Your task to perform on an android device: What's on my calendar today? Image 0: 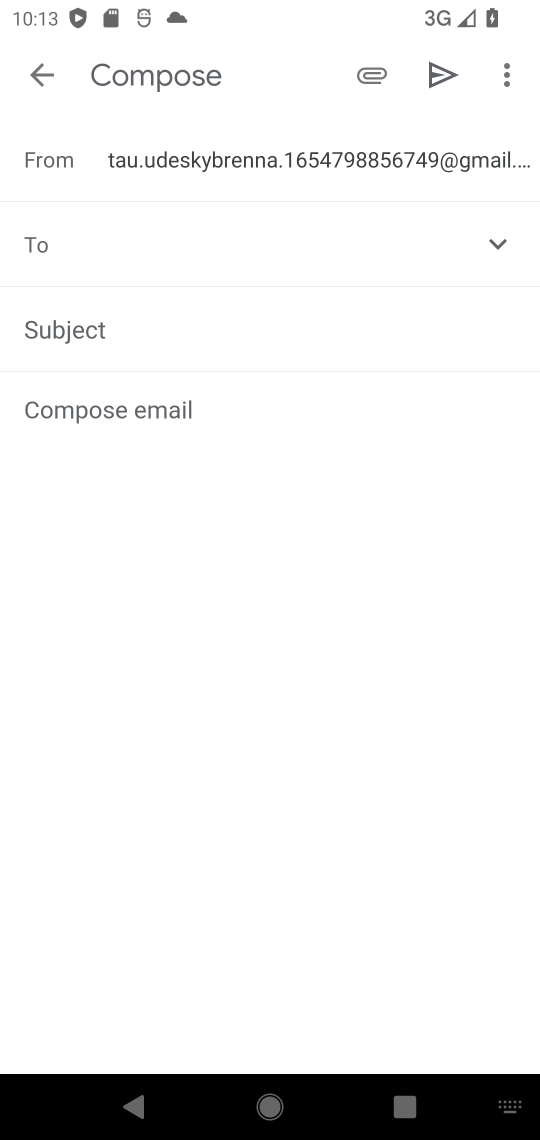
Step 0: press home button
Your task to perform on an android device: What's on my calendar today? Image 1: 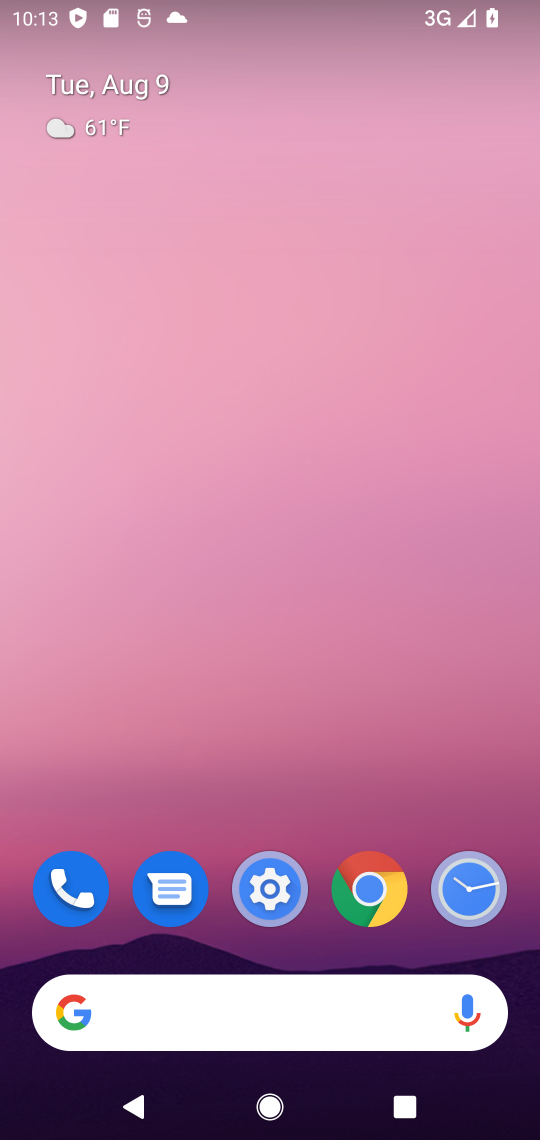
Step 1: drag from (264, 946) to (317, 340)
Your task to perform on an android device: What's on my calendar today? Image 2: 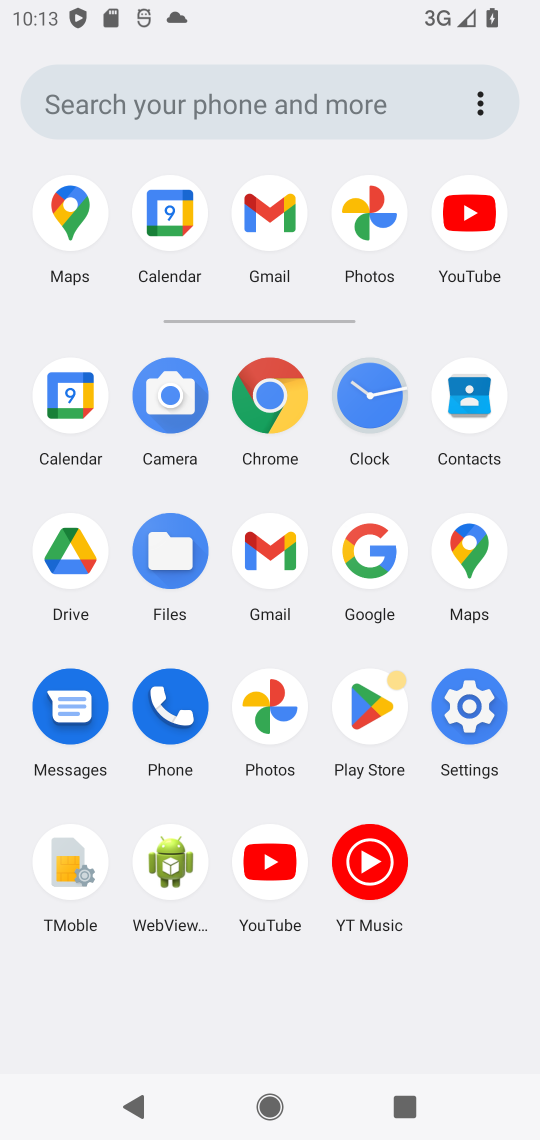
Step 2: click (47, 403)
Your task to perform on an android device: What's on my calendar today? Image 3: 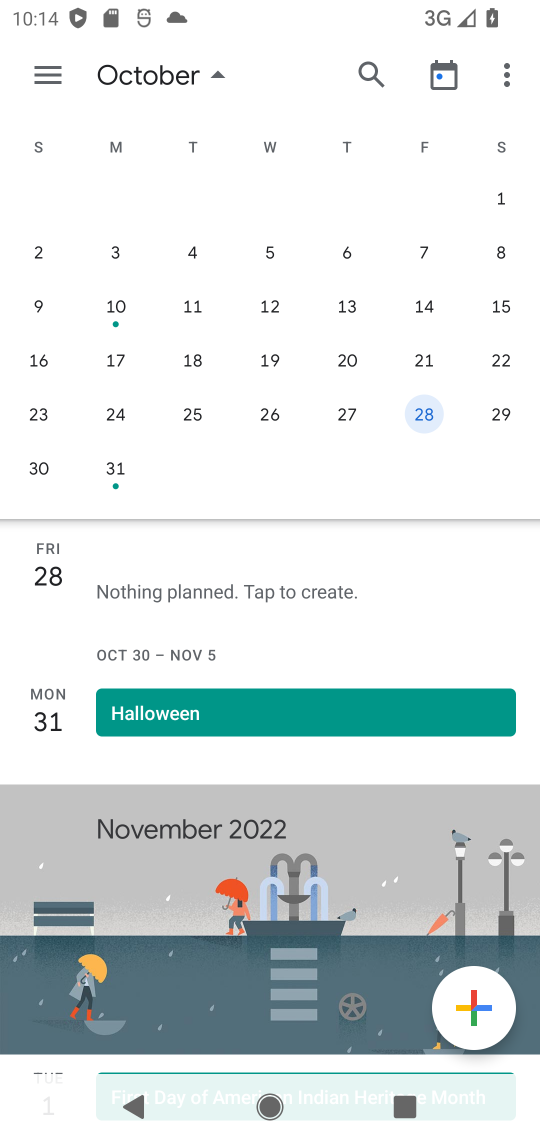
Step 3: click (415, 423)
Your task to perform on an android device: What's on my calendar today? Image 4: 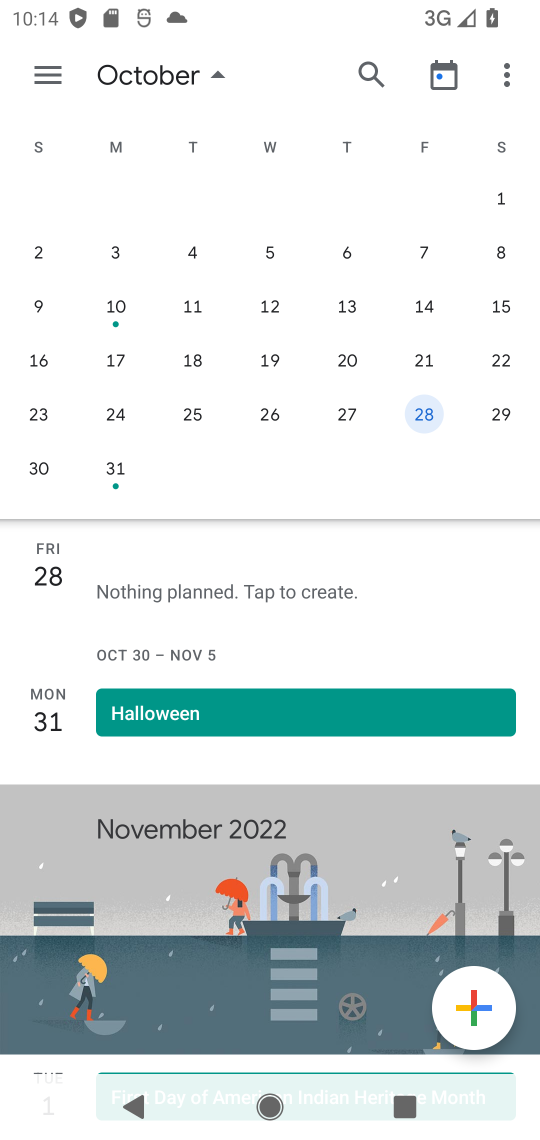
Step 4: task complete